Your task to perform on an android device: Open calendar and show me the fourth week of next month Image 0: 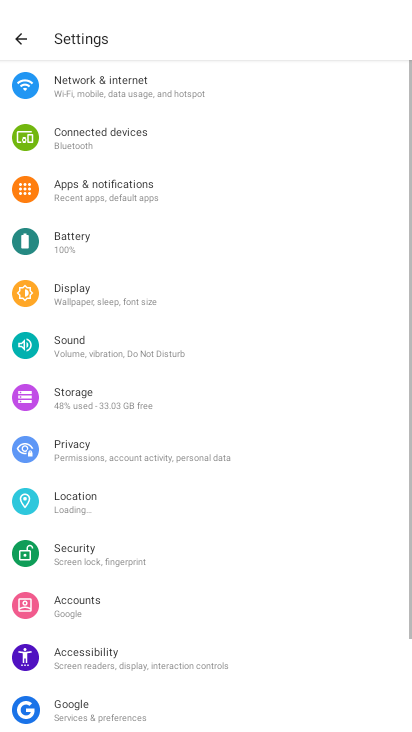
Step 0: press home button
Your task to perform on an android device: Open calendar and show me the fourth week of next month Image 1: 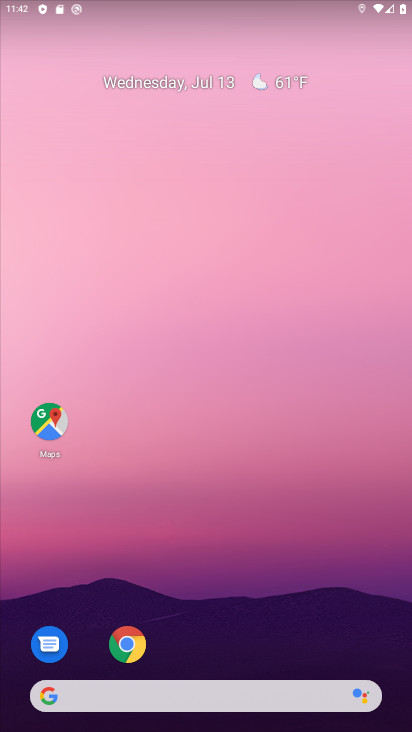
Step 1: drag from (249, 637) to (297, 187)
Your task to perform on an android device: Open calendar and show me the fourth week of next month Image 2: 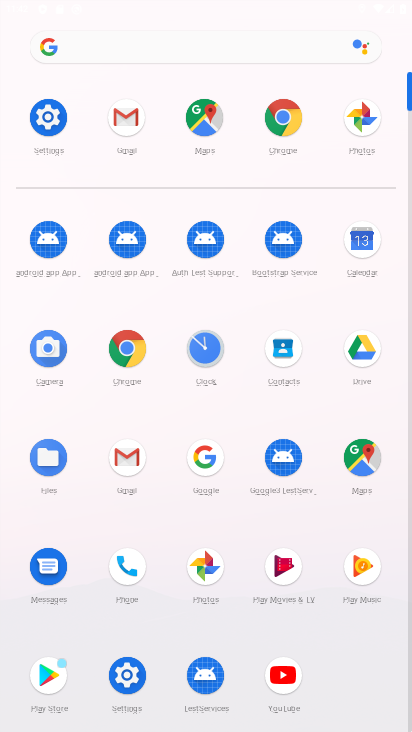
Step 2: click (363, 241)
Your task to perform on an android device: Open calendar and show me the fourth week of next month Image 3: 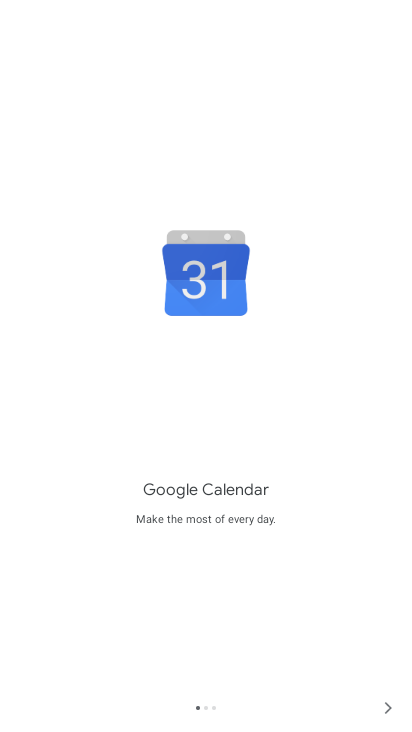
Step 3: click (384, 706)
Your task to perform on an android device: Open calendar and show me the fourth week of next month Image 4: 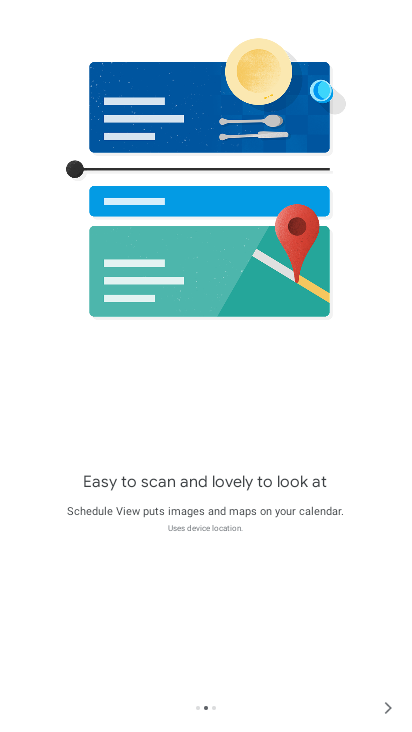
Step 4: click (384, 704)
Your task to perform on an android device: Open calendar and show me the fourth week of next month Image 5: 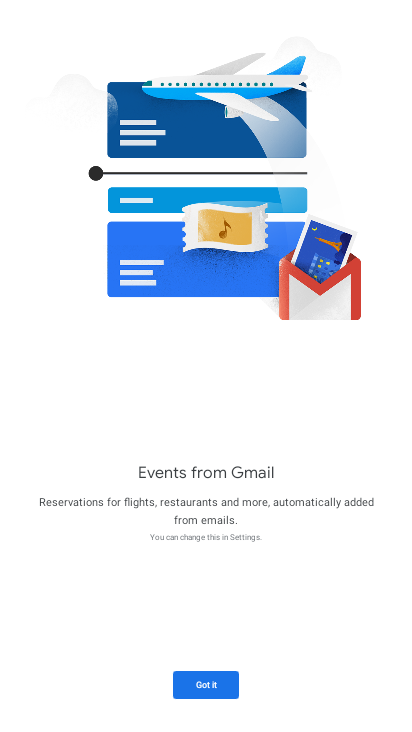
Step 5: click (201, 687)
Your task to perform on an android device: Open calendar and show me the fourth week of next month Image 6: 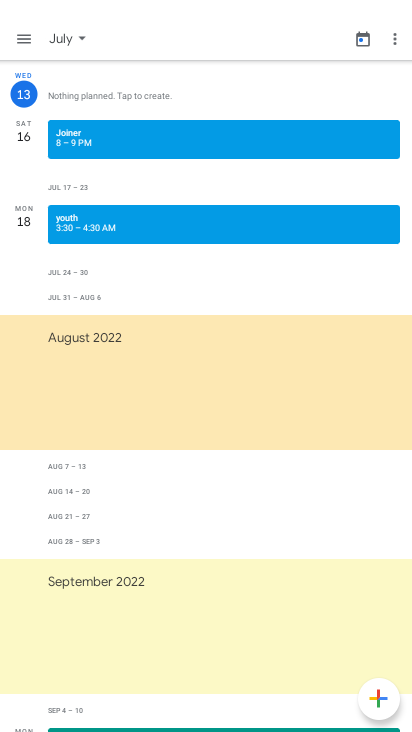
Step 6: click (70, 37)
Your task to perform on an android device: Open calendar and show me the fourth week of next month Image 7: 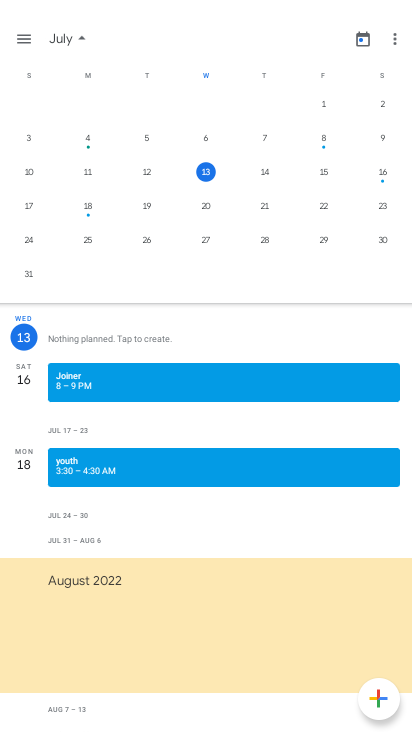
Step 7: drag from (385, 272) to (0, 248)
Your task to perform on an android device: Open calendar and show me the fourth week of next month Image 8: 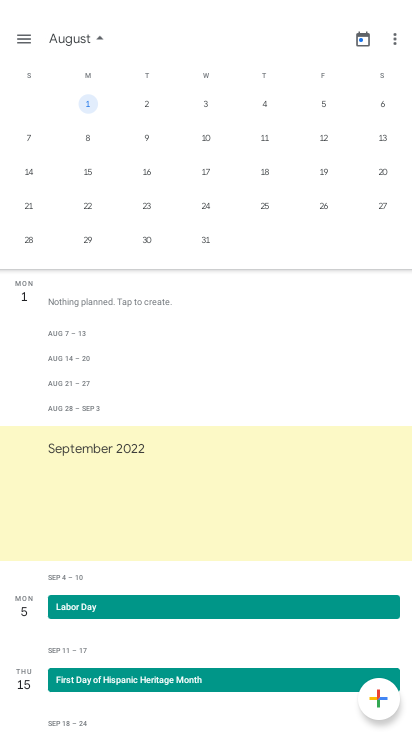
Step 8: click (152, 205)
Your task to perform on an android device: Open calendar and show me the fourth week of next month Image 9: 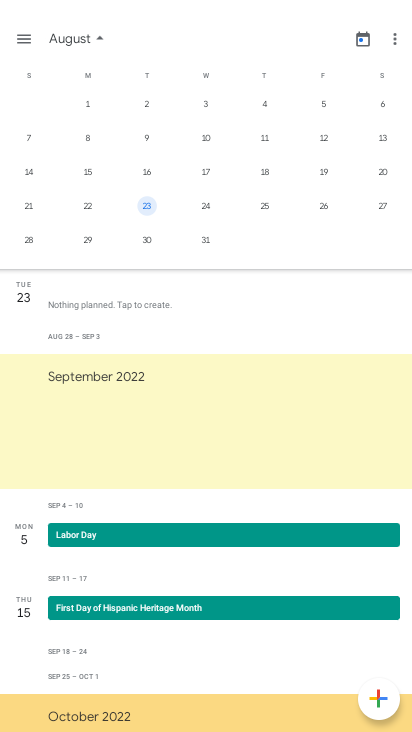
Step 9: task complete